Your task to perform on an android device: Open Google Chrome Image 0: 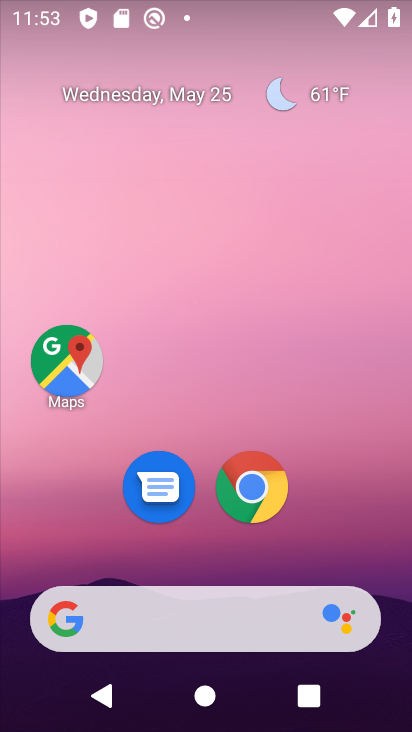
Step 0: press back button
Your task to perform on an android device: Open Google Chrome Image 1: 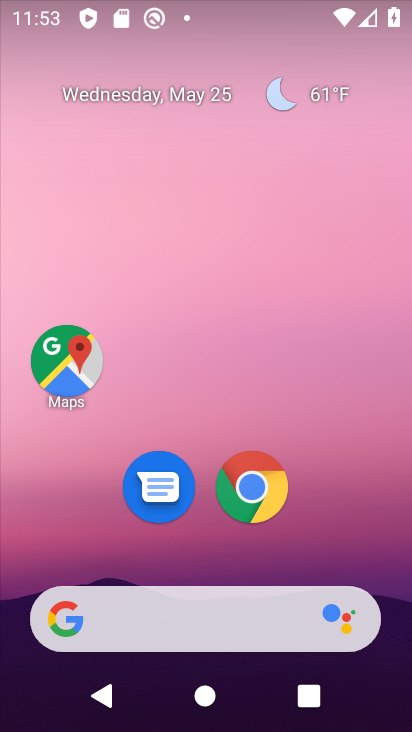
Step 1: drag from (219, 5) to (196, 102)
Your task to perform on an android device: Open Google Chrome Image 2: 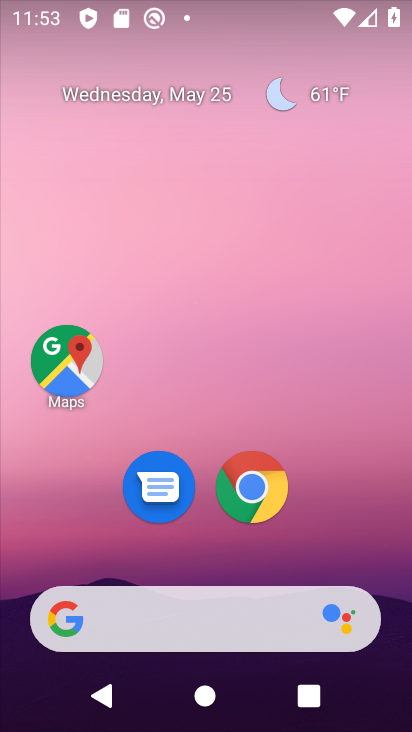
Step 2: drag from (242, 616) to (164, 258)
Your task to perform on an android device: Open Google Chrome Image 3: 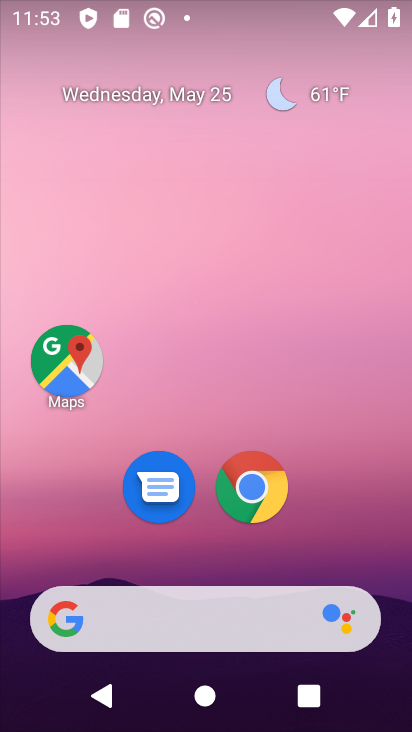
Step 3: drag from (217, 581) to (173, 185)
Your task to perform on an android device: Open Google Chrome Image 4: 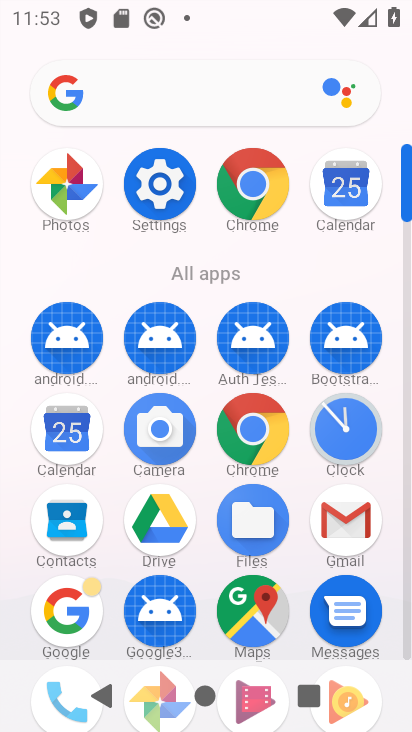
Step 4: drag from (205, 275) to (181, 54)
Your task to perform on an android device: Open Google Chrome Image 5: 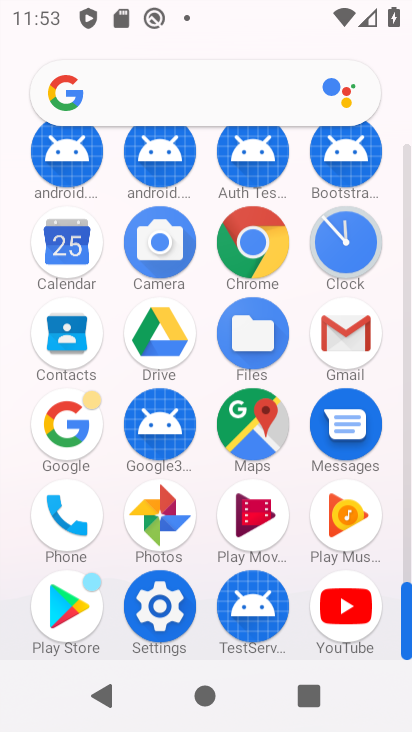
Step 5: drag from (206, 427) to (200, 76)
Your task to perform on an android device: Open Google Chrome Image 6: 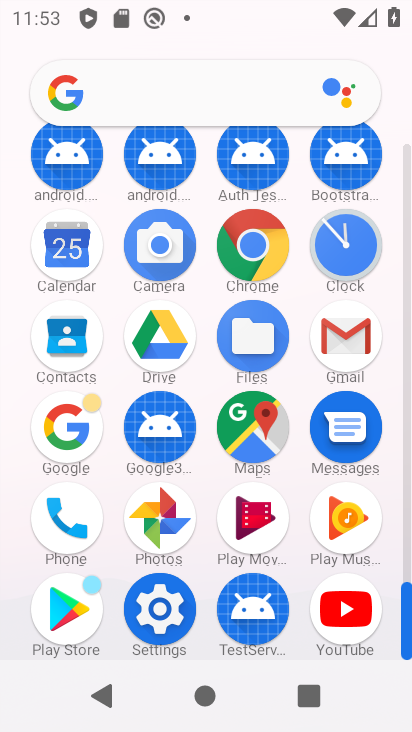
Step 6: click (63, 430)
Your task to perform on an android device: Open Google Chrome Image 7: 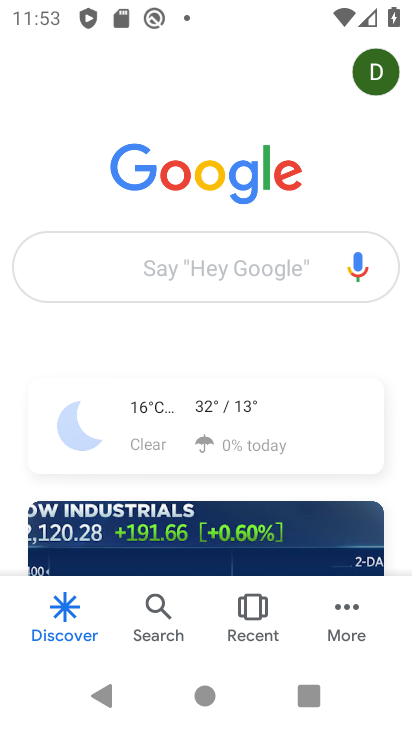
Step 7: task complete